Your task to perform on an android device: Open calendar and show me the fourth week of next month Image 0: 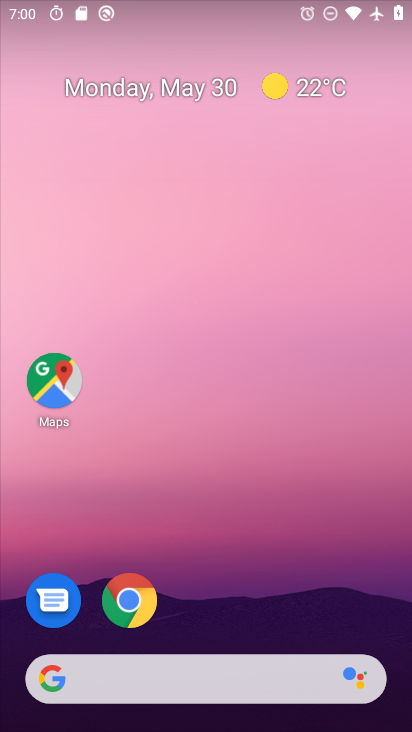
Step 0: press home button
Your task to perform on an android device: Open calendar and show me the fourth week of next month Image 1: 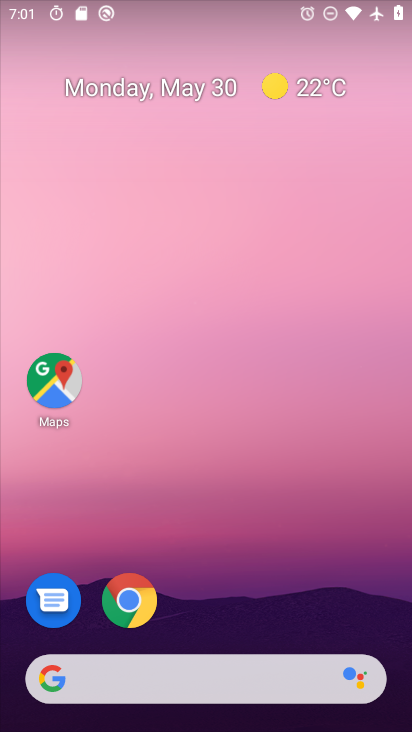
Step 1: drag from (271, 462) to (205, 128)
Your task to perform on an android device: Open calendar and show me the fourth week of next month Image 2: 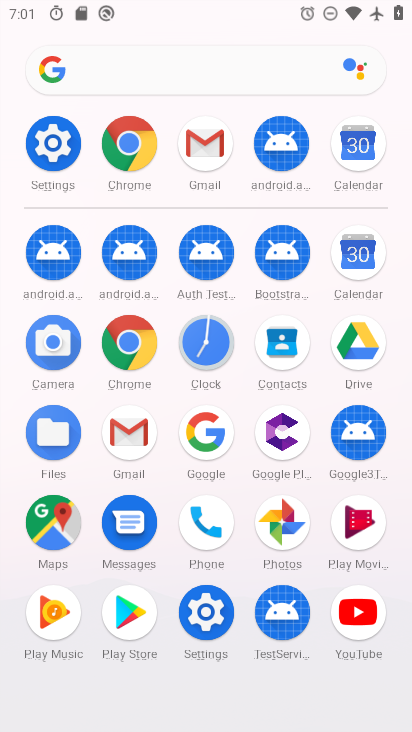
Step 2: click (355, 154)
Your task to perform on an android device: Open calendar and show me the fourth week of next month Image 3: 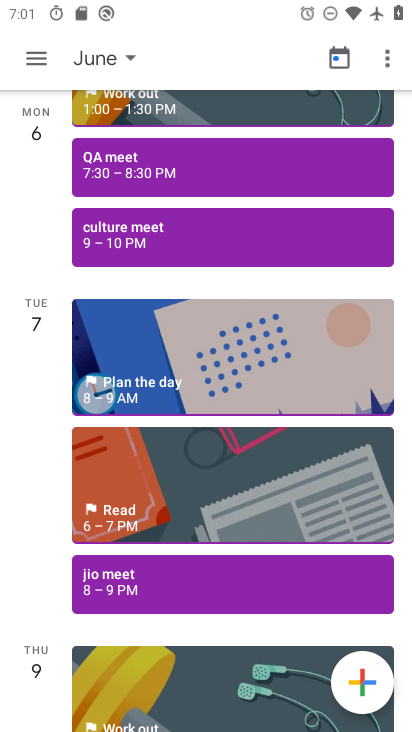
Step 3: click (128, 52)
Your task to perform on an android device: Open calendar and show me the fourth week of next month Image 4: 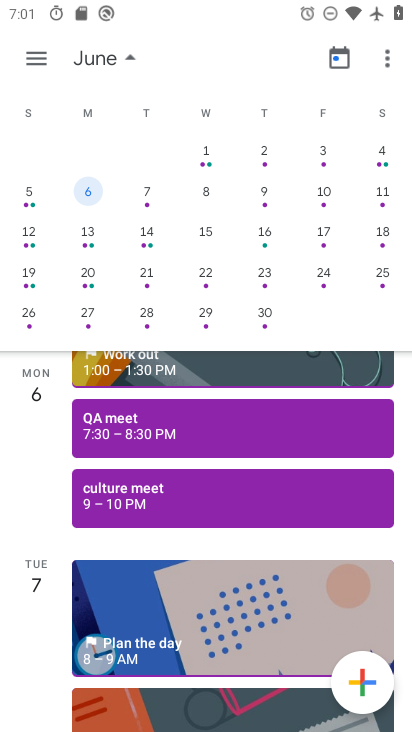
Step 4: click (325, 281)
Your task to perform on an android device: Open calendar and show me the fourth week of next month Image 5: 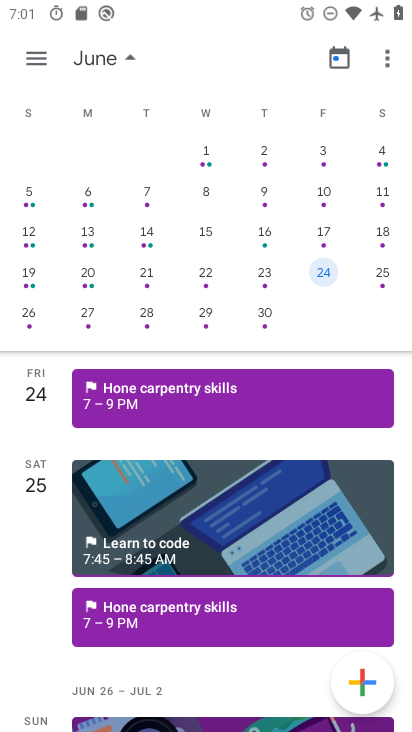
Step 5: task complete